Your task to perform on an android device: Open maps Image 0: 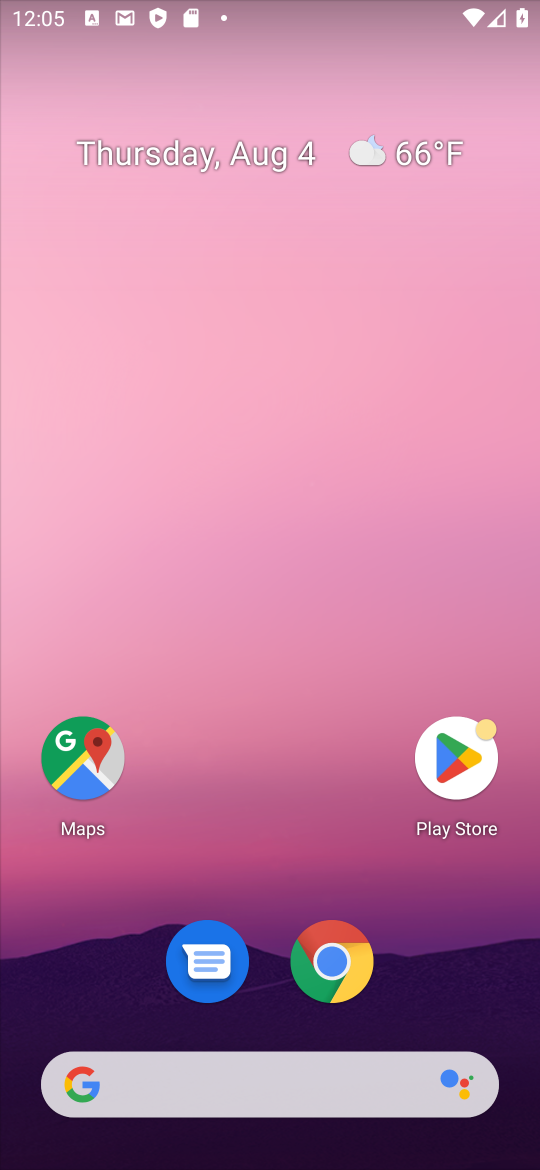
Step 0: click (87, 765)
Your task to perform on an android device: Open maps Image 1: 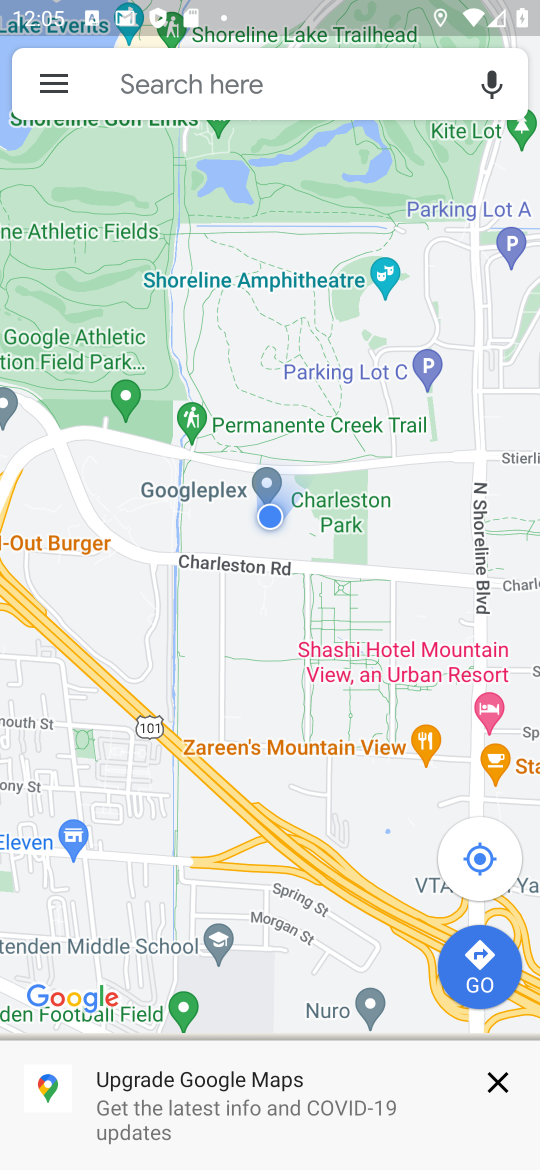
Step 1: task complete